Your task to perform on an android device: Go to CNN.com Image 0: 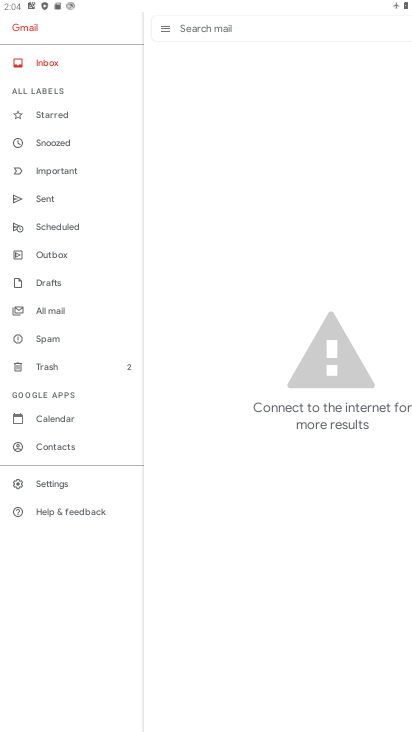
Step 0: press home button
Your task to perform on an android device: Go to CNN.com Image 1: 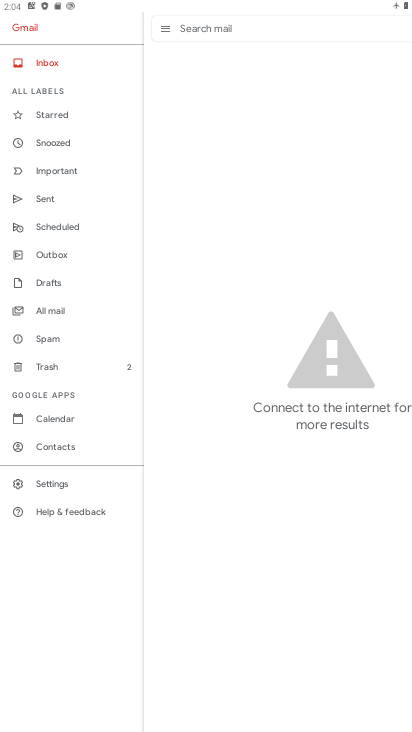
Step 1: press home button
Your task to perform on an android device: Go to CNN.com Image 2: 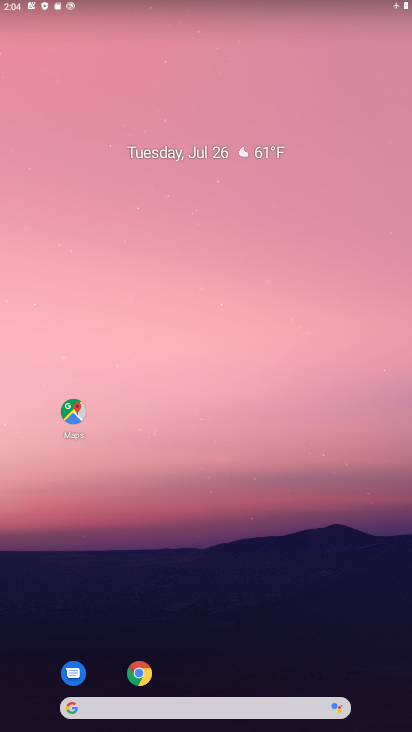
Step 2: drag from (201, 664) to (290, 5)
Your task to perform on an android device: Go to CNN.com Image 3: 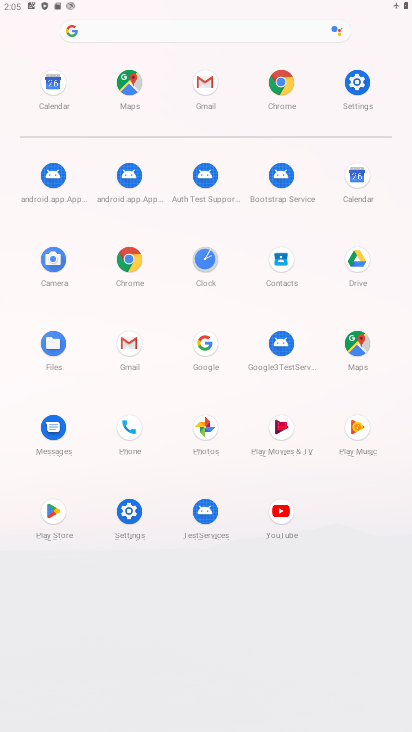
Step 3: click (135, 30)
Your task to perform on an android device: Go to CNN.com Image 4: 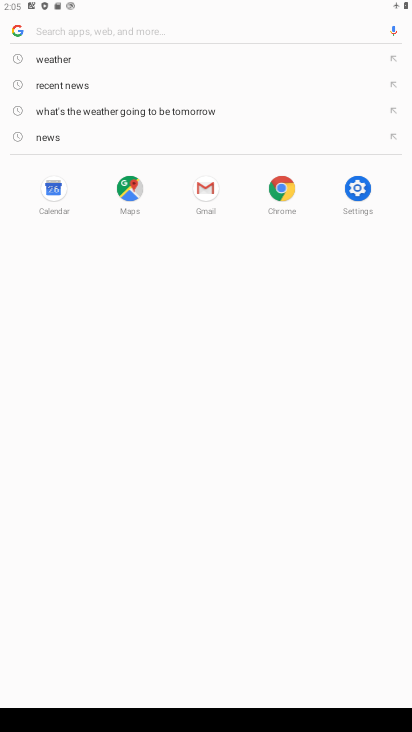
Step 4: type "CNN.com"
Your task to perform on an android device: Go to CNN.com Image 5: 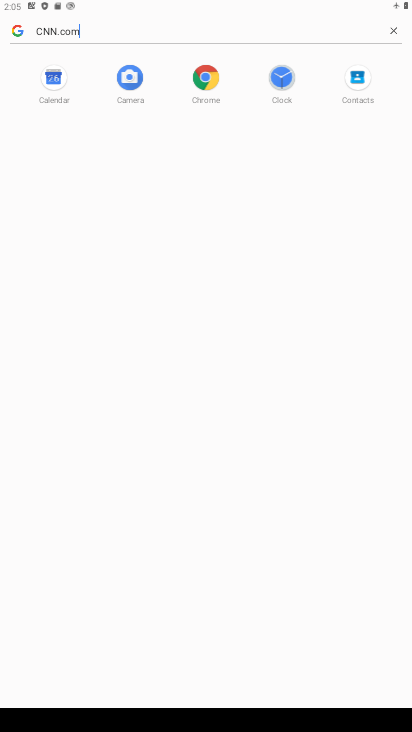
Step 5: type ""
Your task to perform on an android device: Go to CNN.com Image 6: 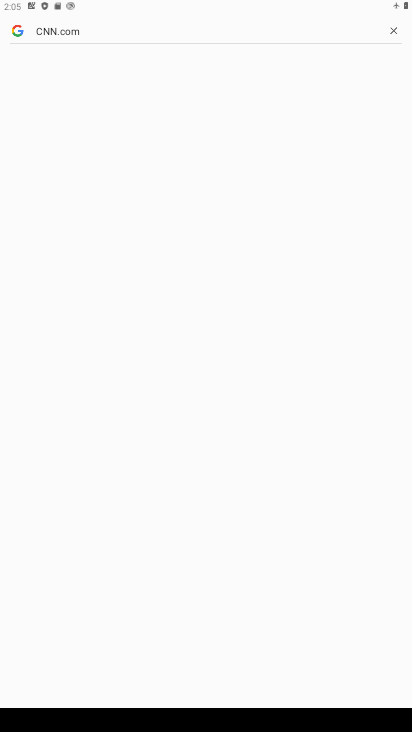
Step 6: click (168, 117)
Your task to perform on an android device: Go to CNN.com Image 7: 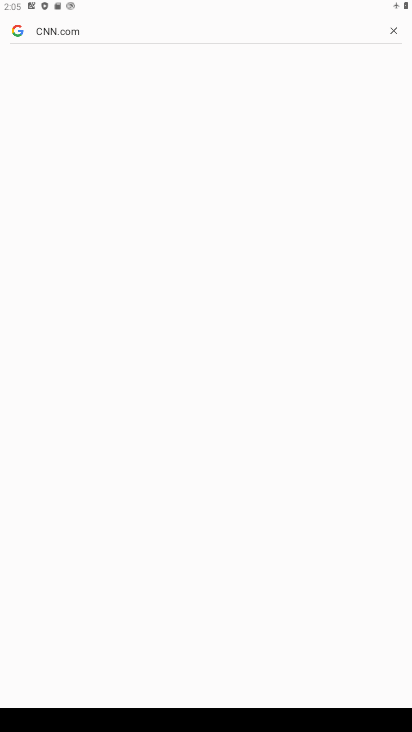
Step 7: task complete